Your task to perform on an android device: Search for pizza restaurants on Maps Image 0: 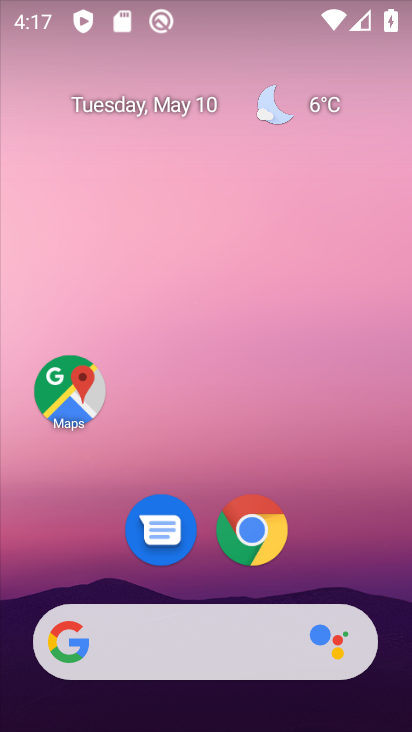
Step 0: click (63, 400)
Your task to perform on an android device: Search for pizza restaurants on Maps Image 1: 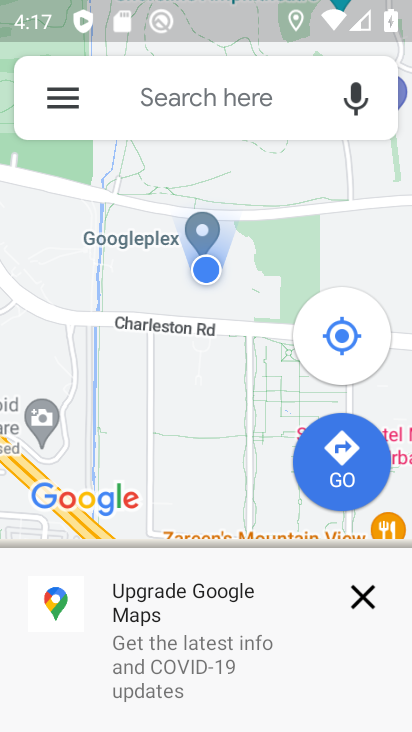
Step 1: click (206, 88)
Your task to perform on an android device: Search for pizza restaurants on Maps Image 2: 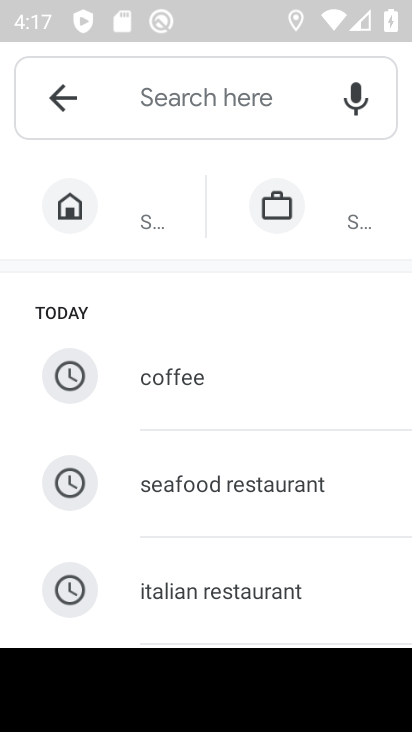
Step 2: type "pizza restaurants"
Your task to perform on an android device: Search for pizza restaurants on Maps Image 3: 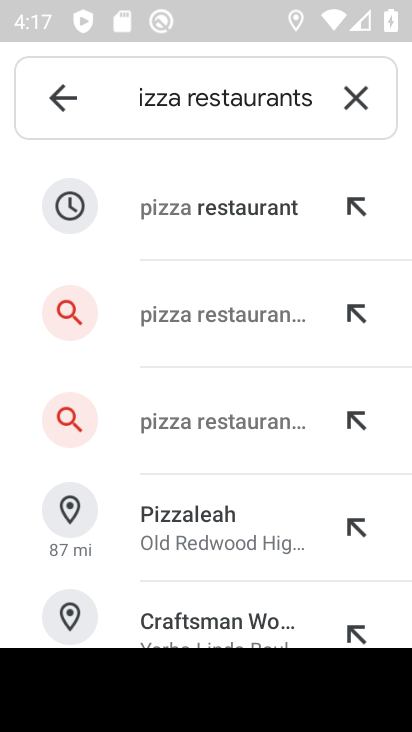
Step 3: task complete